Your task to perform on an android device: Is it going to rain today? Image 0: 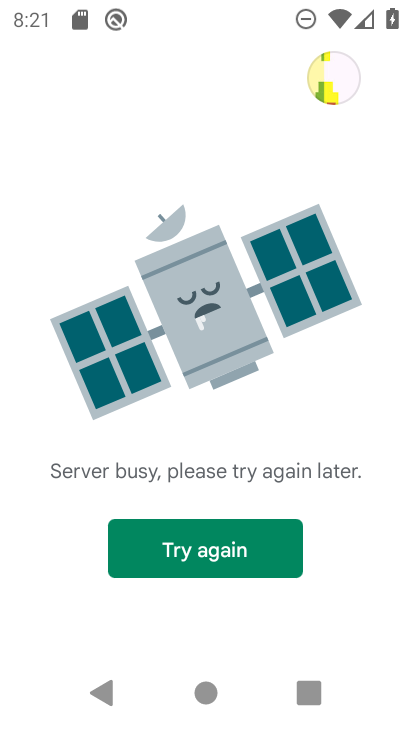
Step 0: press home button
Your task to perform on an android device: Is it going to rain today? Image 1: 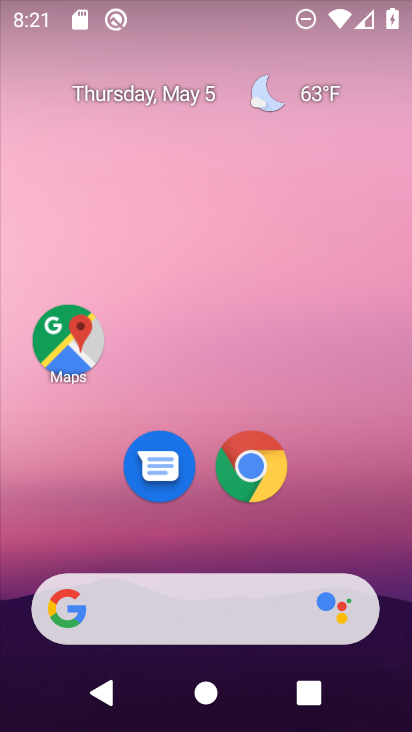
Step 1: click (324, 94)
Your task to perform on an android device: Is it going to rain today? Image 2: 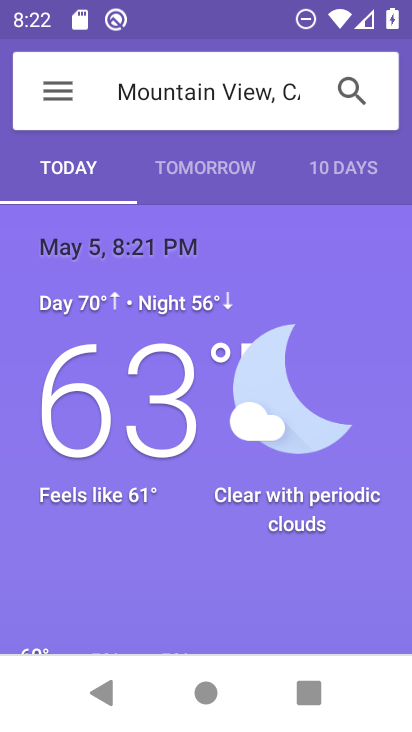
Step 2: task complete